Your task to perform on an android device: change timer sound Image 0: 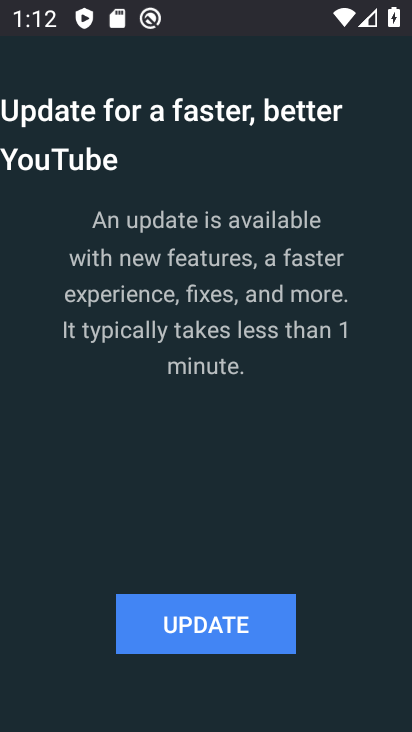
Step 0: press home button
Your task to perform on an android device: change timer sound Image 1: 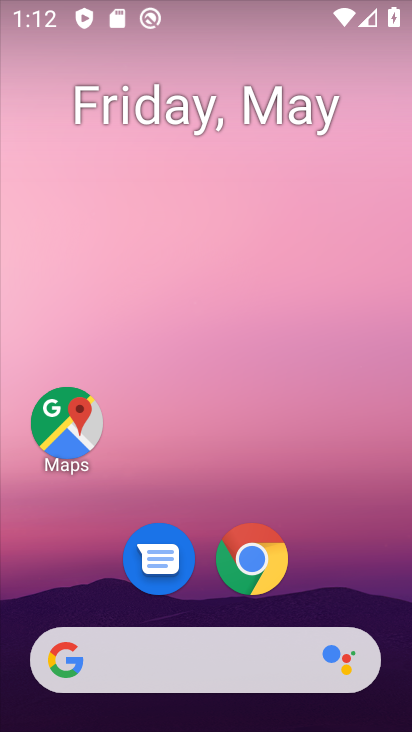
Step 1: drag from (358, 559) to (326, 233)
Your task to perform on an android device: change timer sound Image 2: 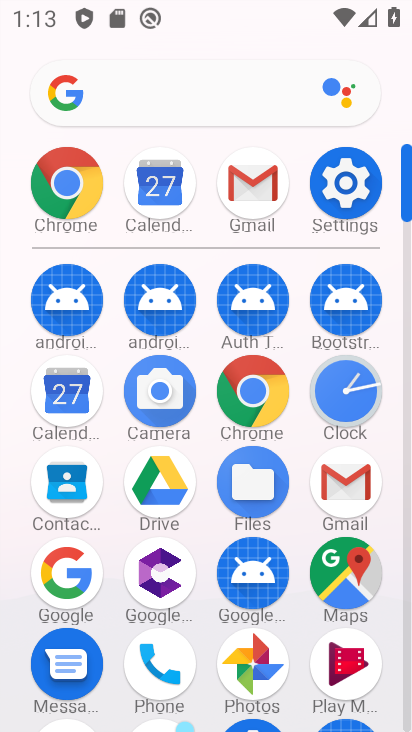
Step 2: click (355, 173)
Your task to perform on an android device: change timer sound Image 3: 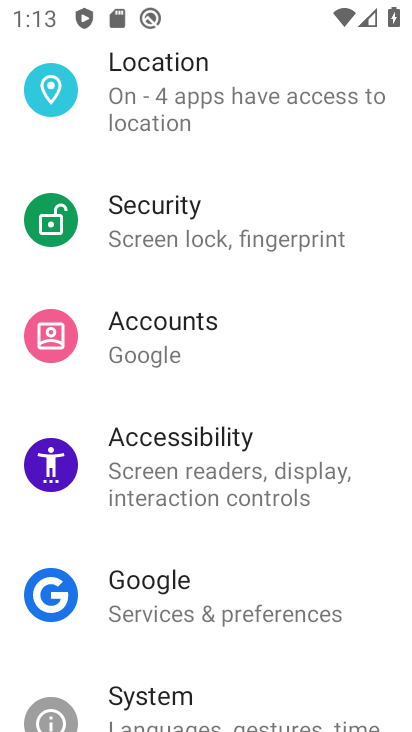
Step 3: drag from (318, 244) to (285, 654)
Your task to perform on an android device: change timer sound Image 4: 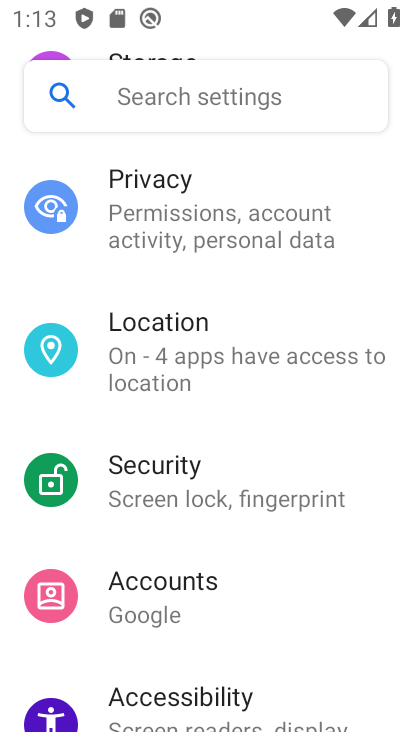
Step 4: drag from (219, 251) to (281, 605)
Your task to perform on an android device: change timer sound Image 5: 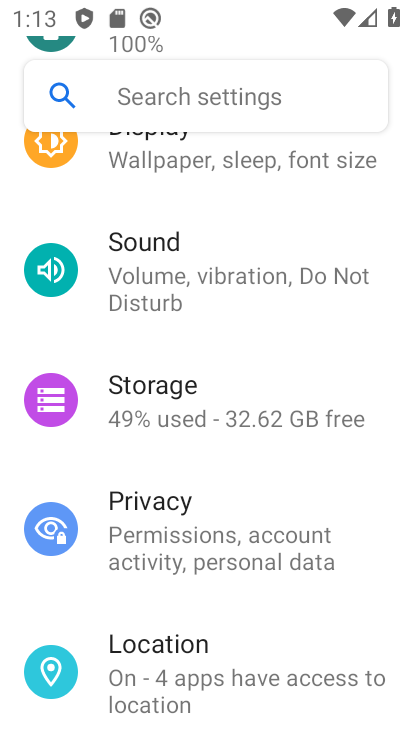
Step 5: click (205, 271)
Your task to perform on an android device: change timer sound Image 6: 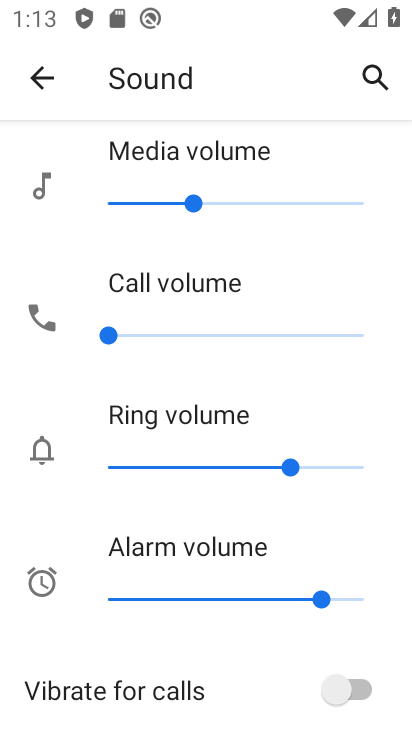
Step 6: task complete